Your task to perform on an android device: Go to Wikipedia Image 0: 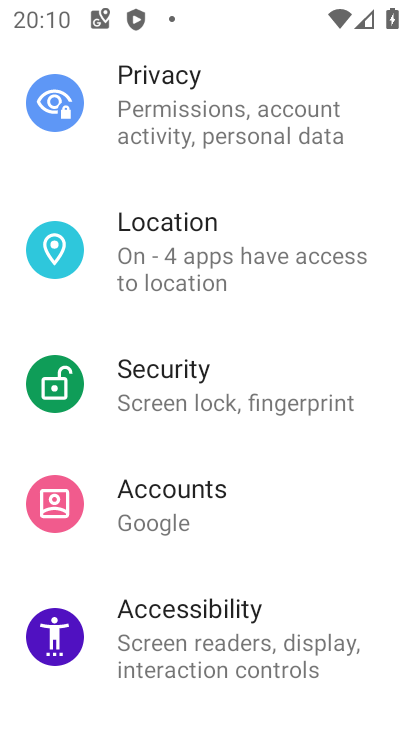
Step 0: press home button
Your task to perform on an android device: Go to Wikipedia Image 1: 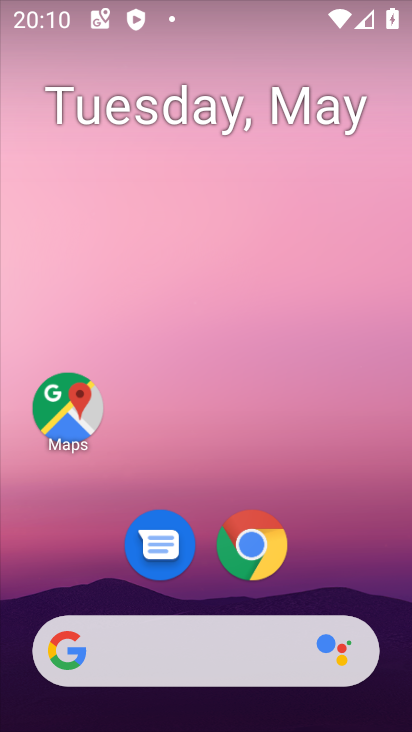
Step 1: click (279, 543)
Your task to perform on an android device: Go to Wikipedia Image 2: 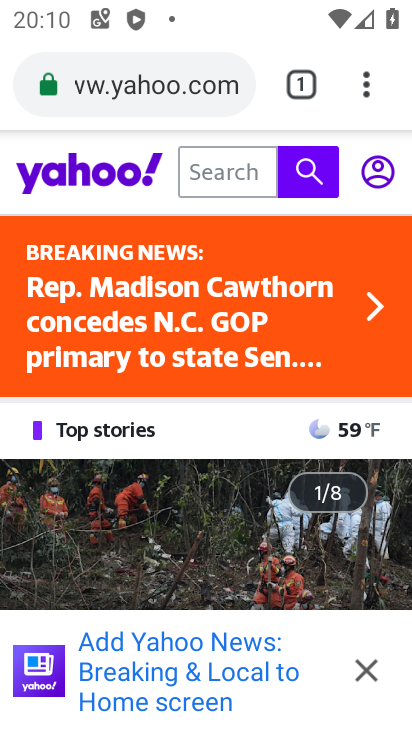
Step 2: click (303, 81)
Your task to perform on an android device: Go to Wikipedia Image 3: 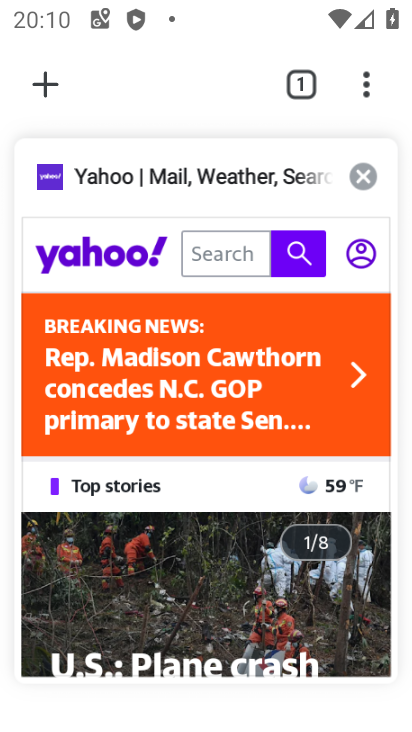
Step 3: click (362, 187)
Your task to perform on an android device: Go to Wikipedia Image 4: 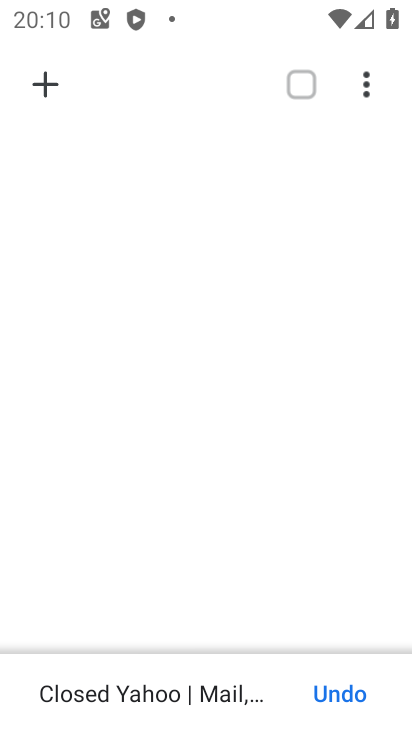
Step 4: click (38, 91)
Your task to perform on an android device: Go to Wikipedia Image 5: 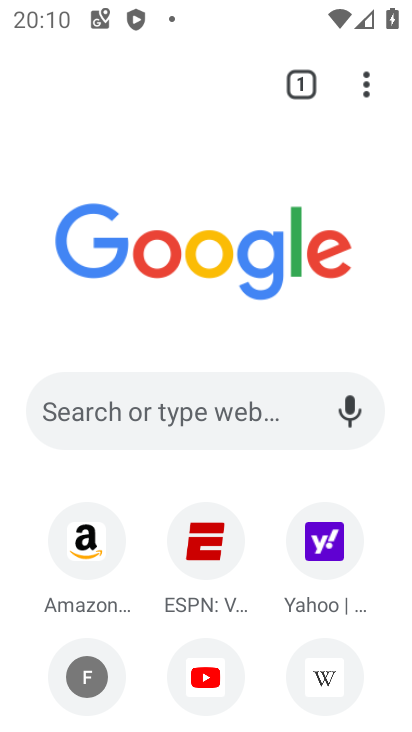
Step 5: click (337, 674)
Your task to perform on an android device: Go to Wikipedia Image 6: 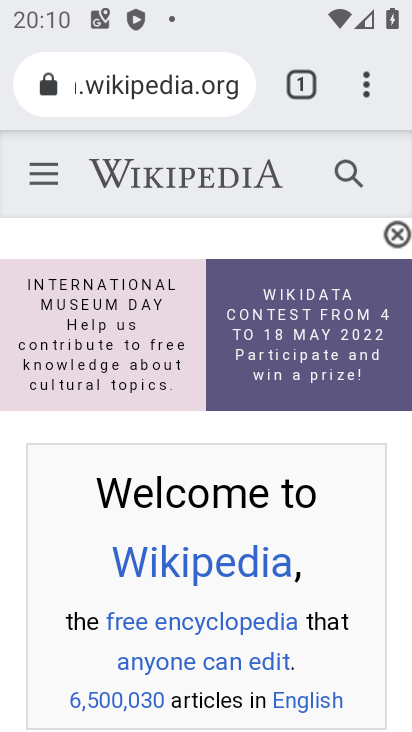
Step 6: task complete